Your task to perform on an android device: turn on airplane mode Image 0: 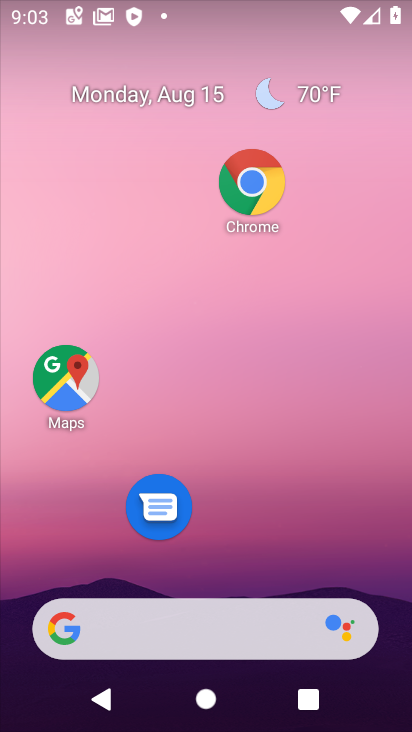
Step 0: drag from (337, 563) to (355, 52)
Your task to perform on an android device: turn on airplane mode Image 1: 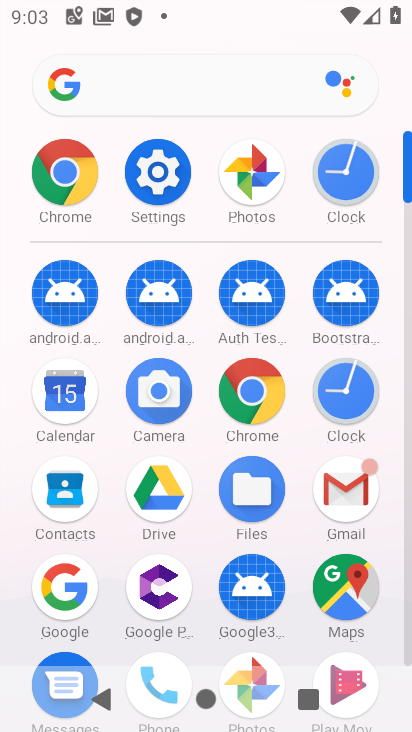
Step 1: click (154, 209)
Your task to perform on an android device: turn on airplane mode Image 2: 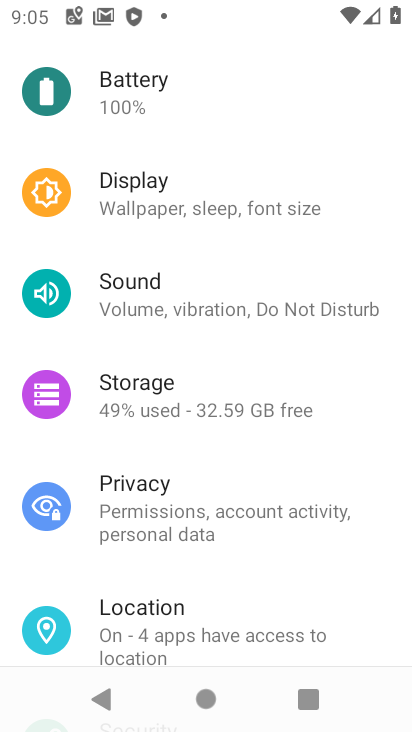
Step 2: drag from (181, 187) to (195, 640)
Your task to perform on an android device: turn on airplane mode Image 3: 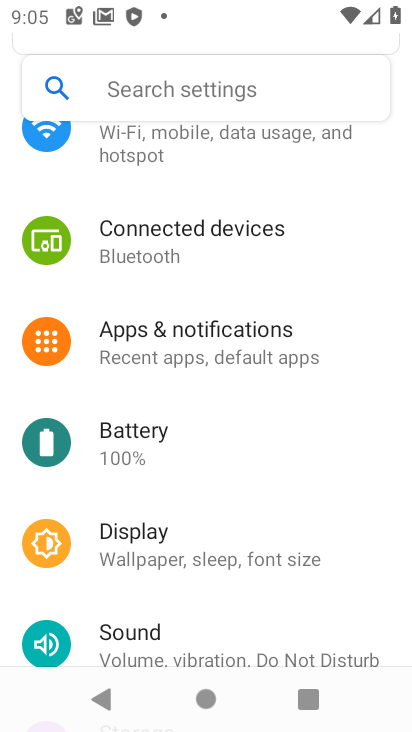
Step 3: drag from (329, 265) to (314, 567)
Your task to perform on an android device: turn on airplane mode Image 4: 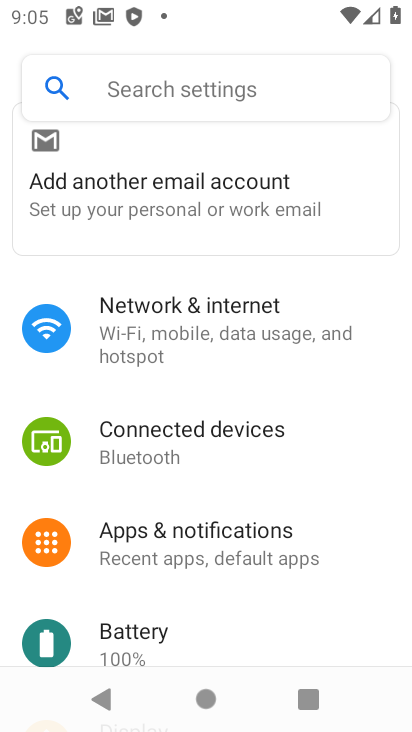
Step 4: click (264, 303)
Your task to perform on an android device: turn on airplane mode Image 5: 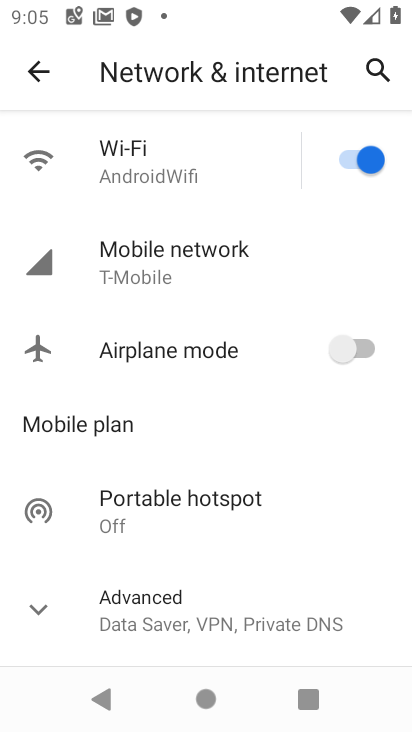
Step 5: click (345, 349)
Your task to perform on an android device: turn on airplane mode Image 6: 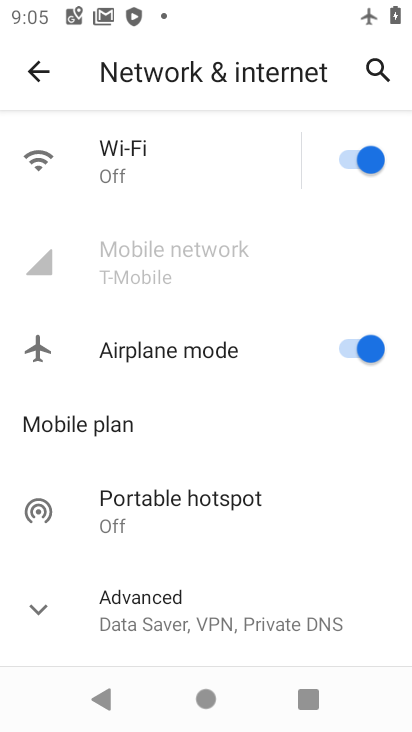
Step 6: click (370, 148)
Your task to perform on an android device: turn on airplane mode Image 7: 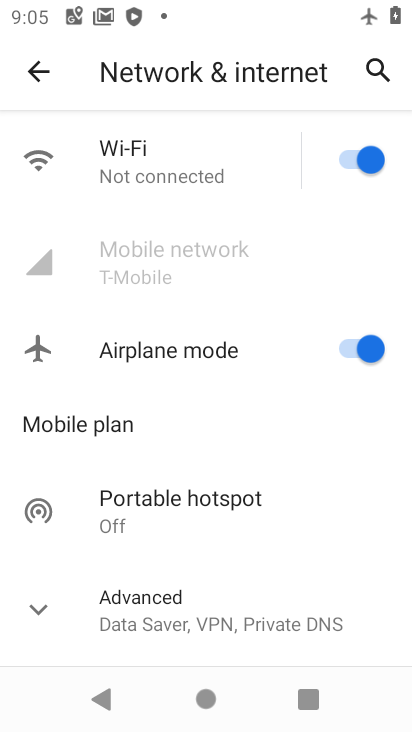
Step 7: task complete